Your task to perform on an android device: Open eBay Image 0: 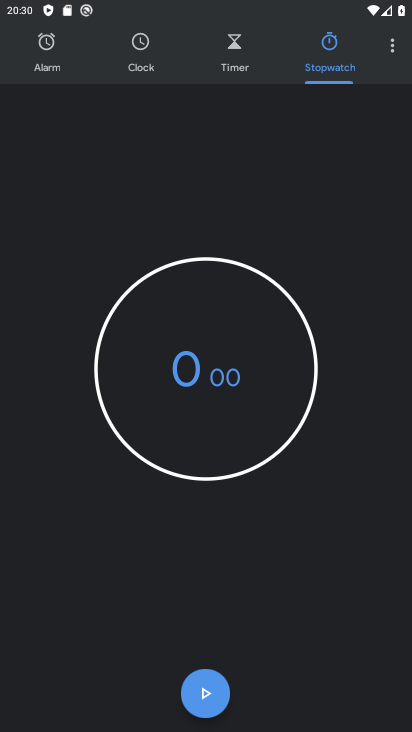
Step 0: press home button
Your task to perform on an android device: Open eBay Image 1: 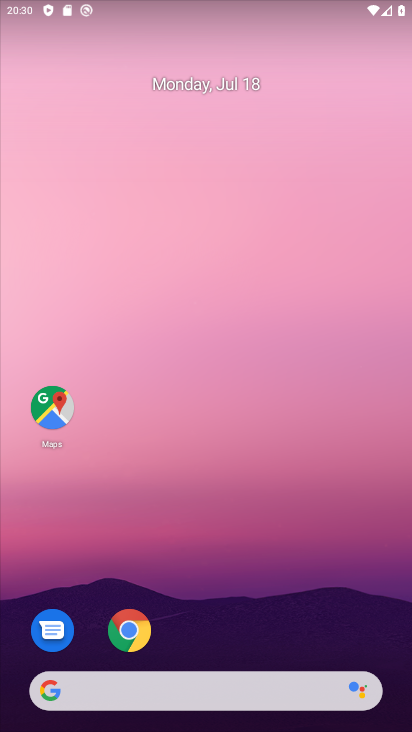
Step 1: click (134, 615)
Your task to perform on an android device: Open eBay Image 2: 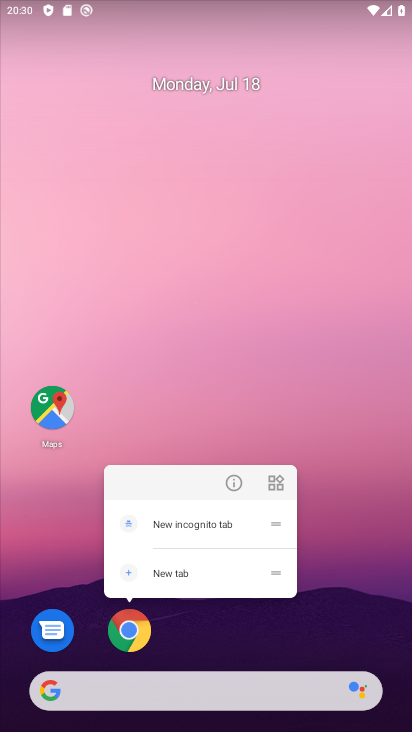
Step 2: click (135, 635)
Your task to perform on an android device: Open eBay Image 3: 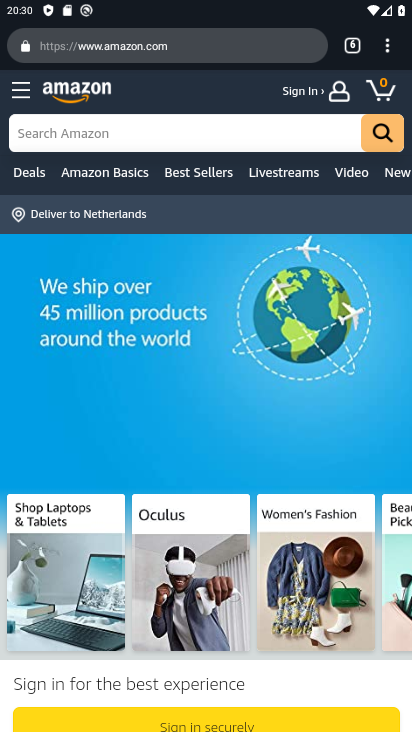
Step 3: click (385, 39)
Your task to perform on an android device: Open eBay Image 4: 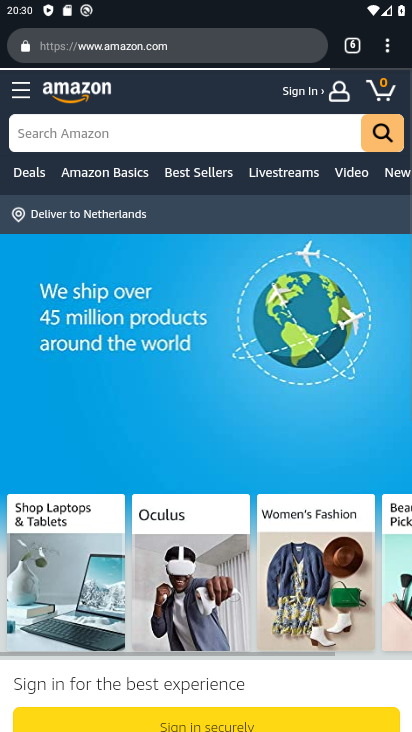
Step 4: click (398, 38)
Your task to perform on an android device: Open eBay Image 5: 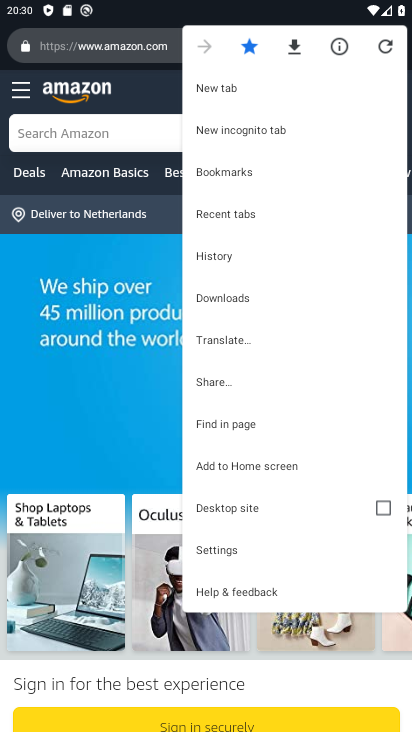
Step 5: click (238, 86)
Your task to perform on an android device: Open eBay Image 6: 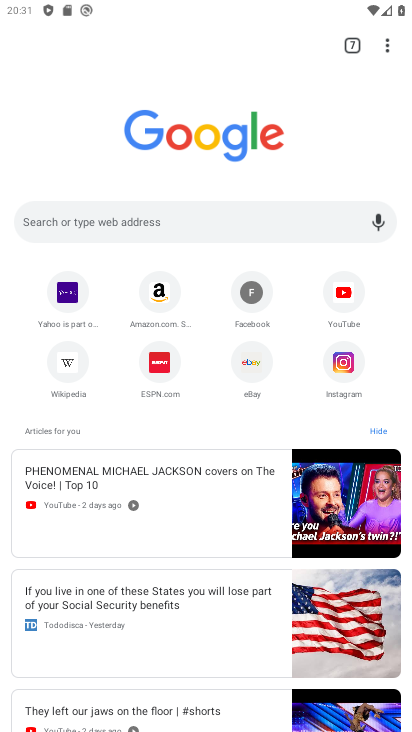
Step 6: click (241, 371)
Your task to perform on an android device: Open eBay Image 7: 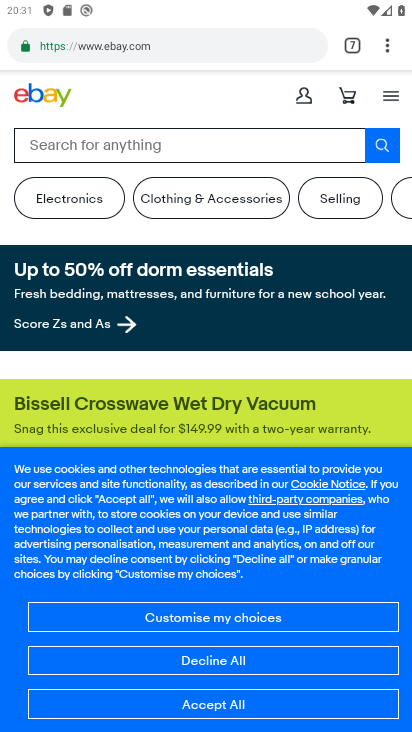
Step 7: task complete